Your task to perform on an android device: Toggle the flashlight Image 0: 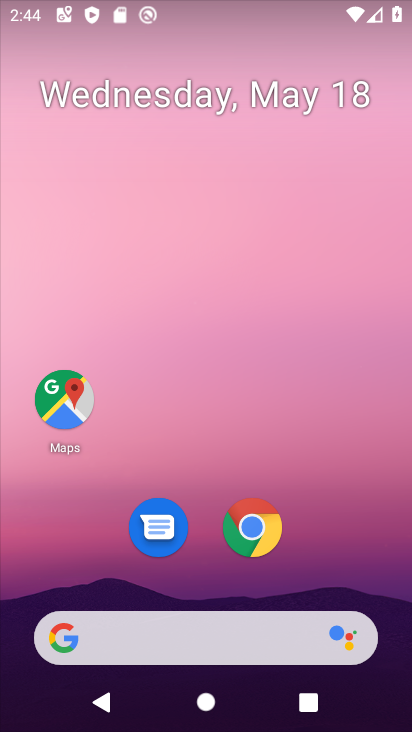
Step 0: drag from (217, 597) to (111, 77)
Your task to perform on an android device: Toggle the flashlight Image 1: 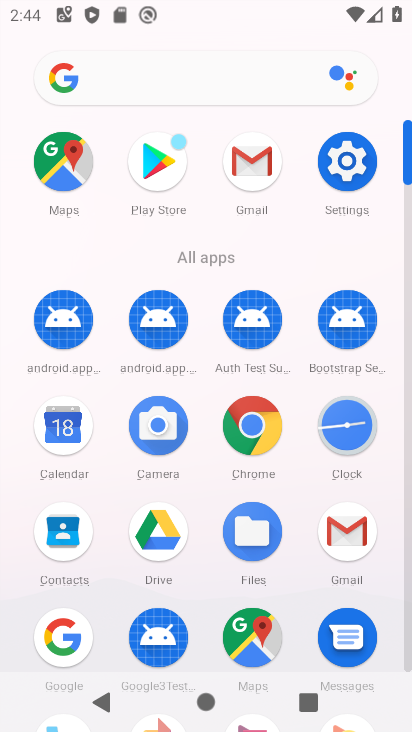
Step 1: click (372, 162)
Your task to perform on an android device: Toggle the flashlight Image 2: 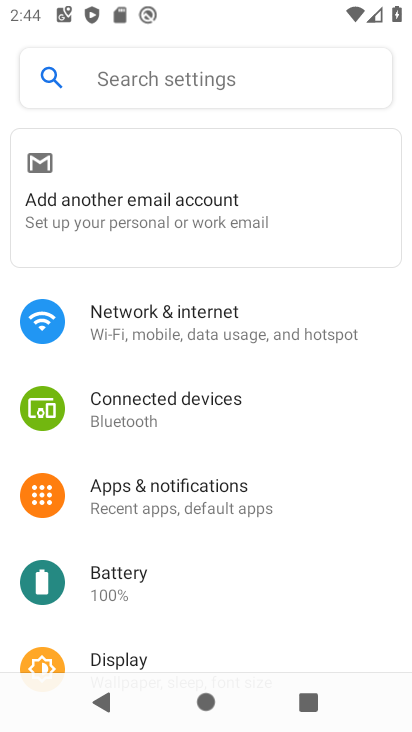
Step 2: task complete